Your task to perform on an android device: Turn on the flashlight Image 0: 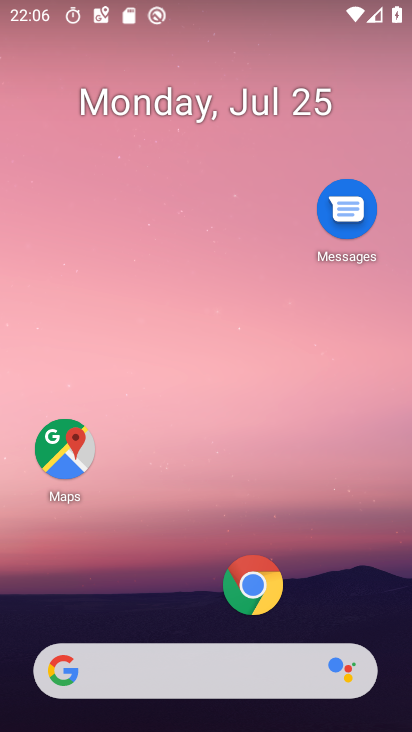
Step 0: press home button
Your task to perform on an android device: Turn on the flashlight Image 1: 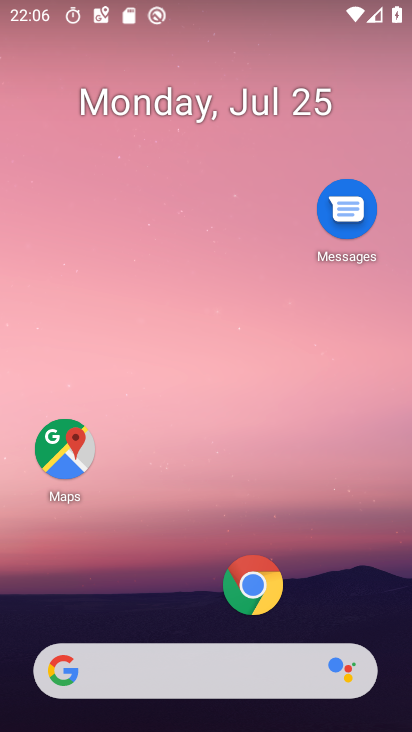
Step 1: task complete